Your task to perform on an android device: Open accessibility settings Image 0: 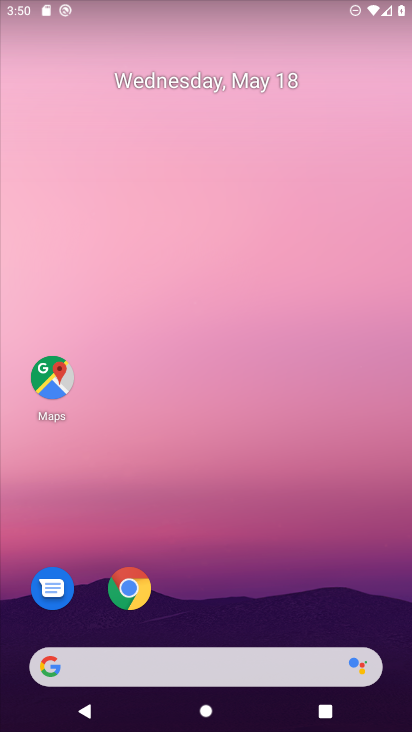
Step 0: click (136, 585)
Your task to perform on an android device: Open accessibility settings Image 1: 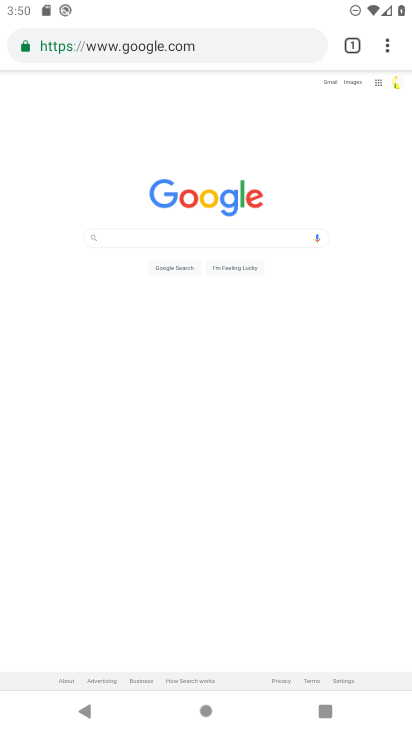
Step 1: click (388, 38)
Your task to perform on an android device: Open accessibility settings Image 2: 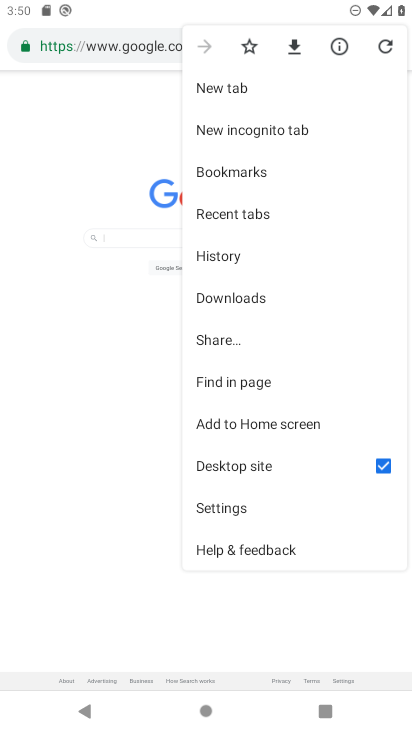
Step 2: press home button
Your task to perform on an android device: Open accessibility settings Image 3: 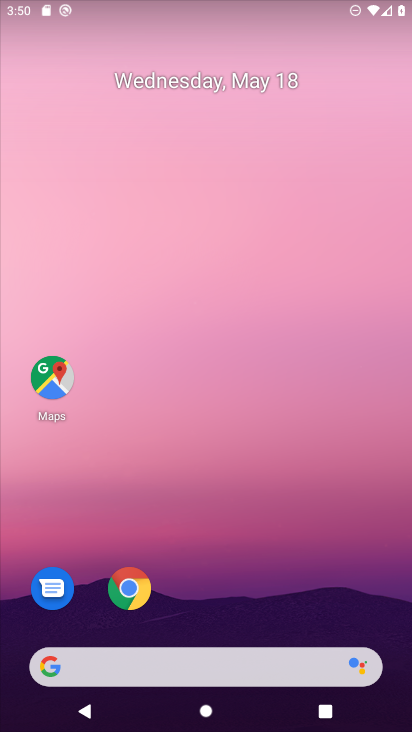
Step 3: drag from (258, 601) to (242, 147)
Your task to perform on an android device: Open accessibility settings Image 4: 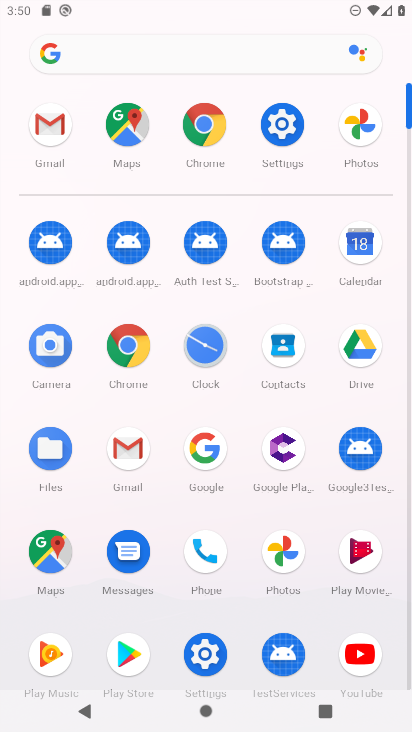
Step 4: click (284, 129)
Your task to perform on an android device: Open accessibility settings Image 5: 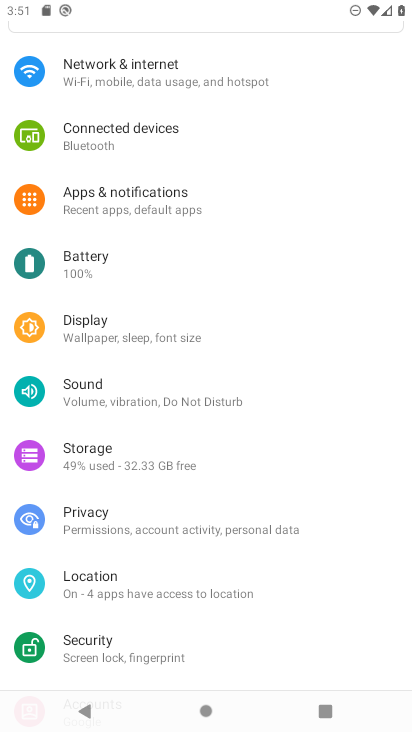
Step 5: drag from (107, 643) to (166, 316)
Your task to perform on an android device: Open accessibility settings Image 6: 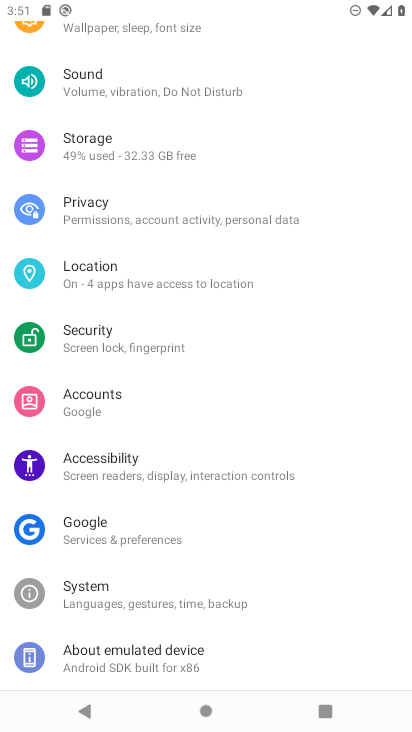
Step 6: click (165, 477)
Your task to perform on an android device: Open accessibility settings Image 7: 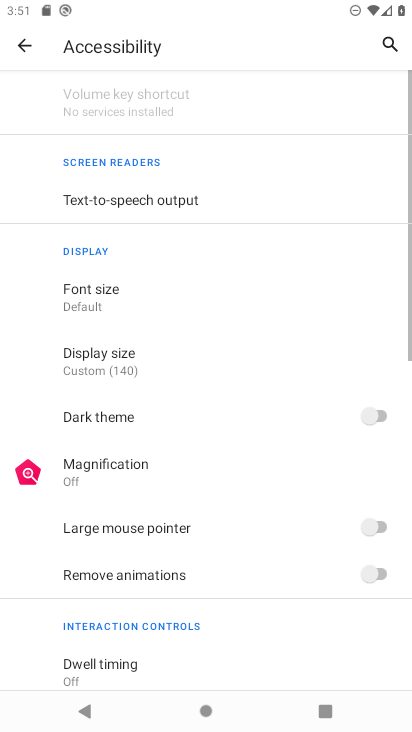
Step 7: task complete